Your task to perform on an android device: star an email in the gmail app Image 0: 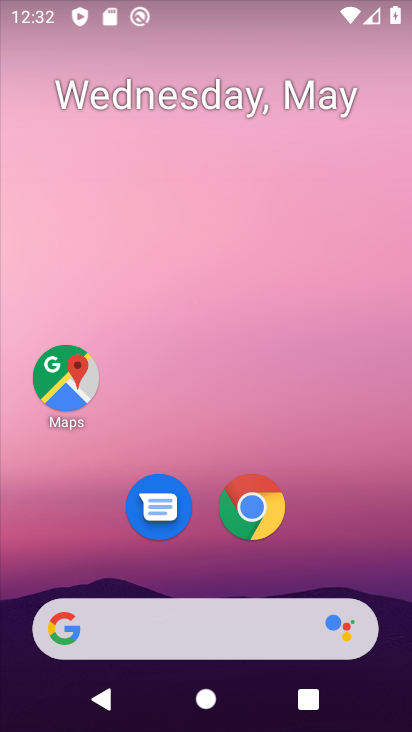
Step 0: drag from (390, 607) to (331, 121)
Your task to perform on an android device: star an email in the gmail app Image 1: 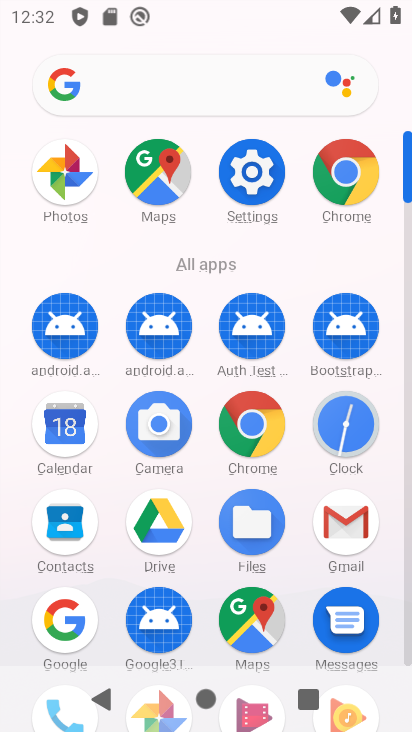
Step 1: click (405, 652)
Your task to perform on an android device: star an email in the gmail app Image 2: 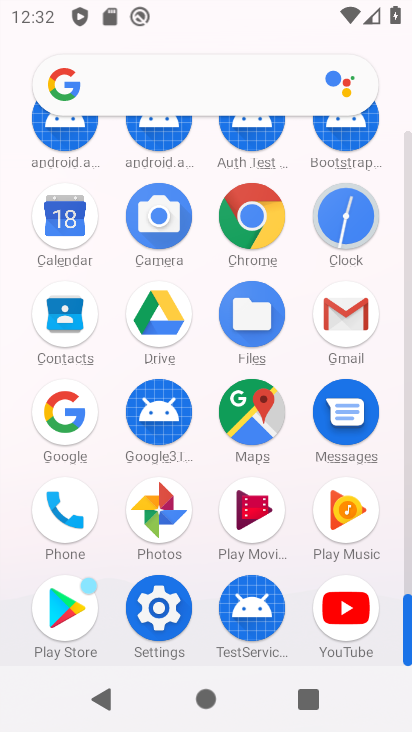
Step 2: click (344, 312)
Your task to perform on an android device: star an email in the gmail app Image 3: 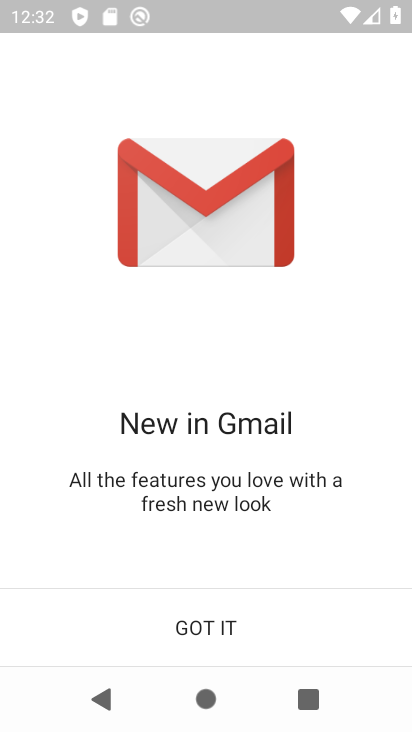
Step 3: click (202, 631)
Your task to perform on an android device: star an email in the gmail app Image 4: 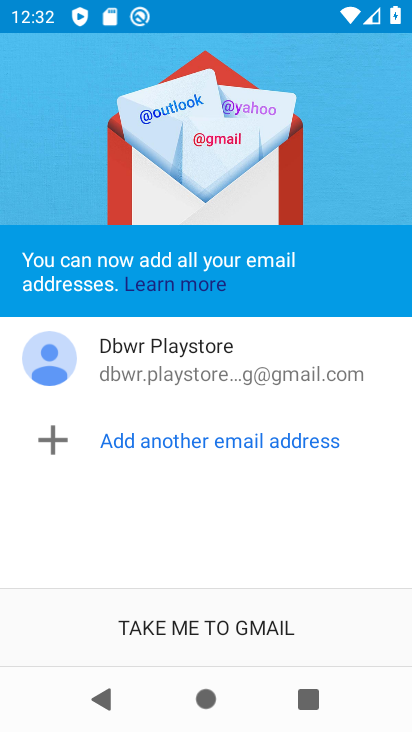
Step 4: click (202, 628)
Your task to perform on an android device: star an email in the gmail app Image 5: 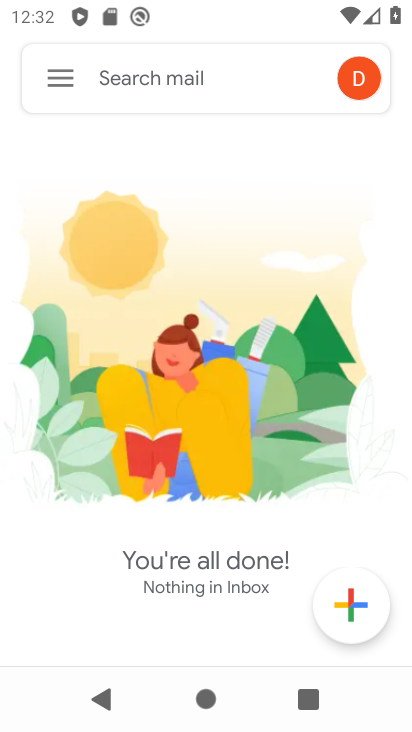
Step 5: click (59, 78)
Your task to perform on an android device: star an email in the gmail app Image 6: 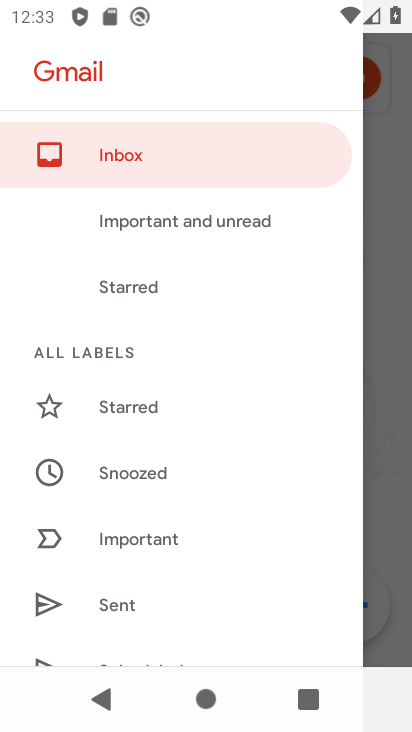
Step 6: drag from (212, 532) to (196, 222)
Your task to perform on an android device: star an email in the gmail app Image 7: 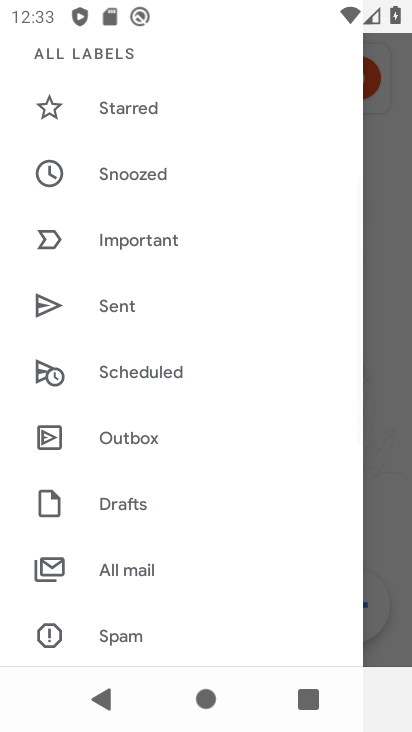
Step 7: click (107, 569)
Your task to perform on an android device: star an email in the gmail app Image 8: 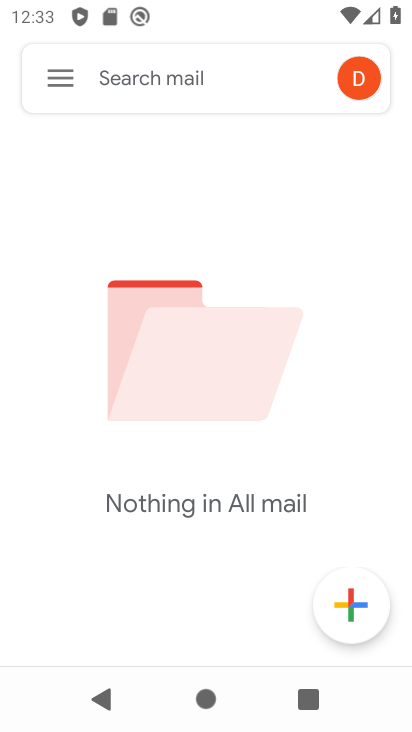
Step 8: task complete